Your task to perform on an android device: check storage Image 0: 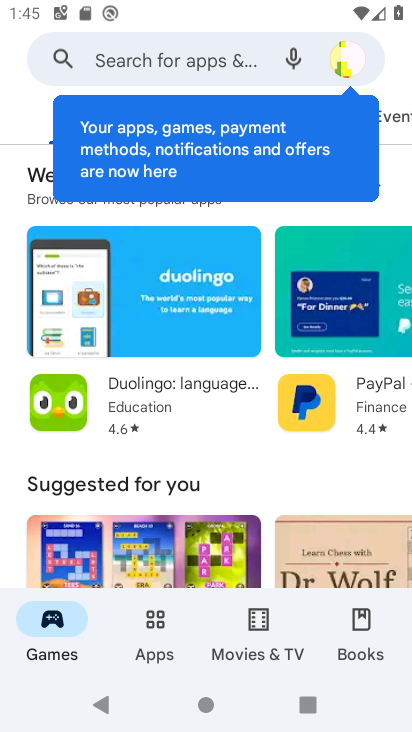
Step 0: press home button
Your task to perform on an android device: check storage Image 1: 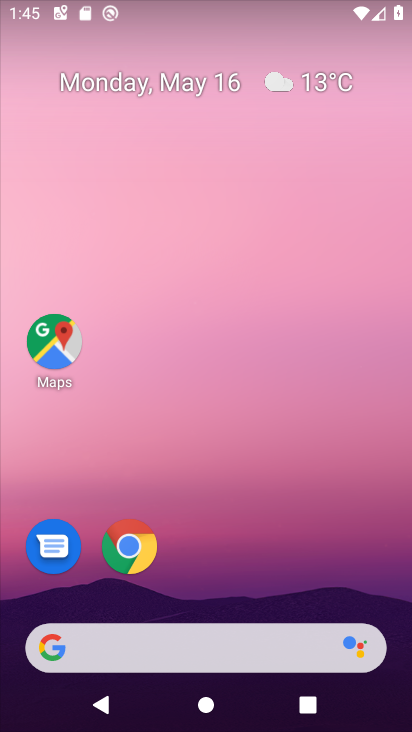
Step 1: drag from (229, 706) to (186, 79)
Your task to perform on an android device: check storage Image 2: 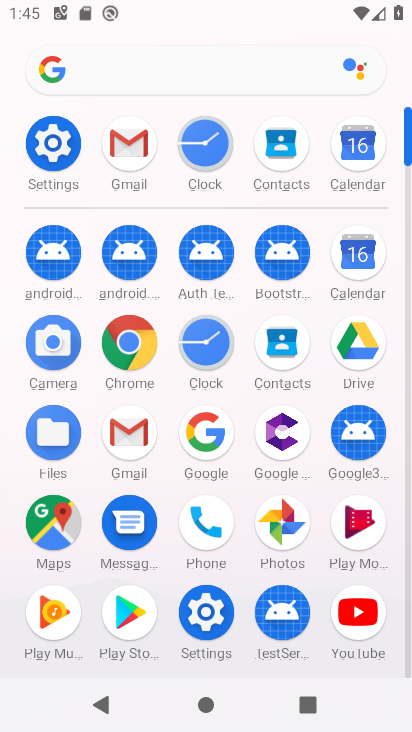
Step 2: click (53, 138)
Your task to perform on an android device: check storage Image 3: 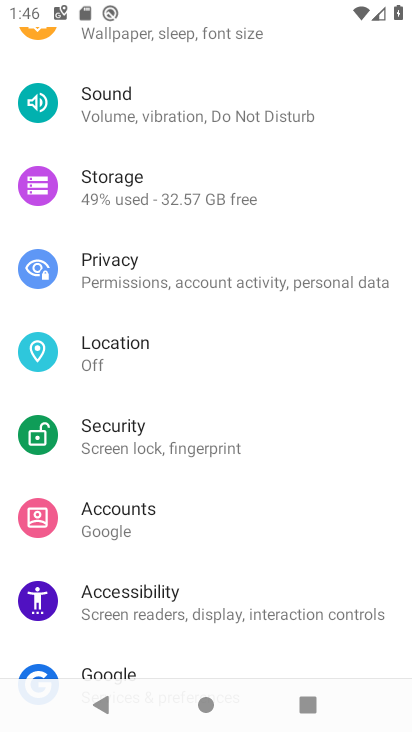
Step 3: click (114, 170)
Your task to perform on an android device: check storage Image 4: 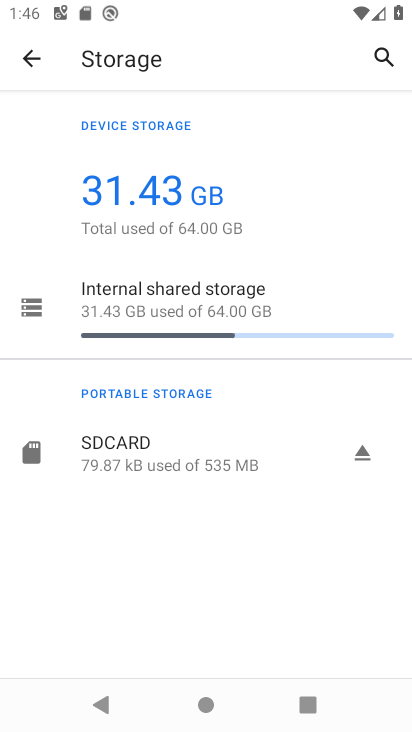
Step 4: task complete